Your task to perform on an android device: Go to settings Image 0: 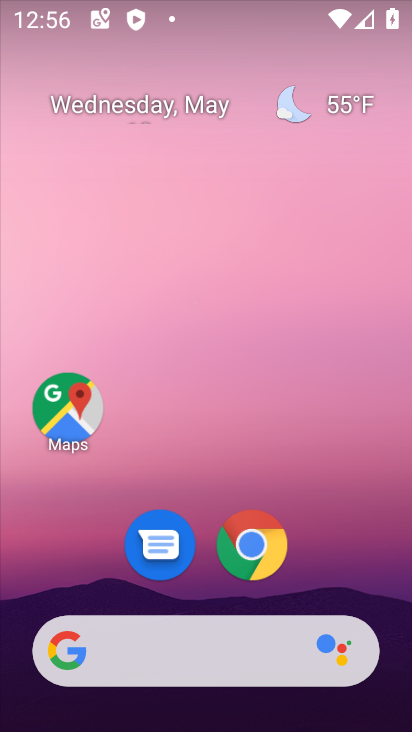
Step 0: drag from (351, 579) to (314, 34)
Your task to perform on an android device: Go to settings Image 1: 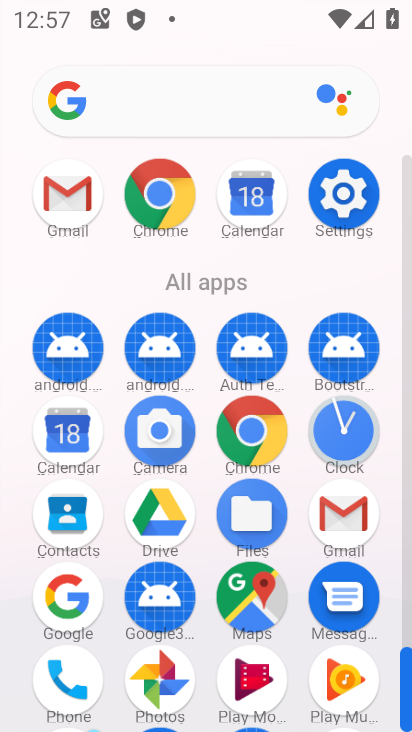
Step 1: click (351, 190)
Your task to perform on an android device: Go to settings Image 2: 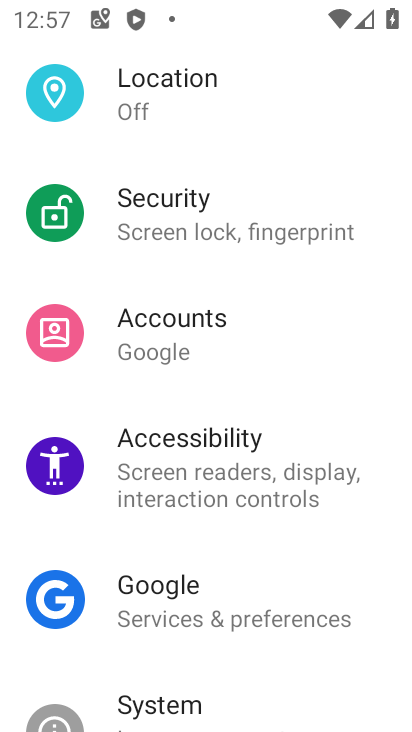
Step 2: task complete